Your task to perform on an android device: turn off priority inbox in the gmail app Image 0: 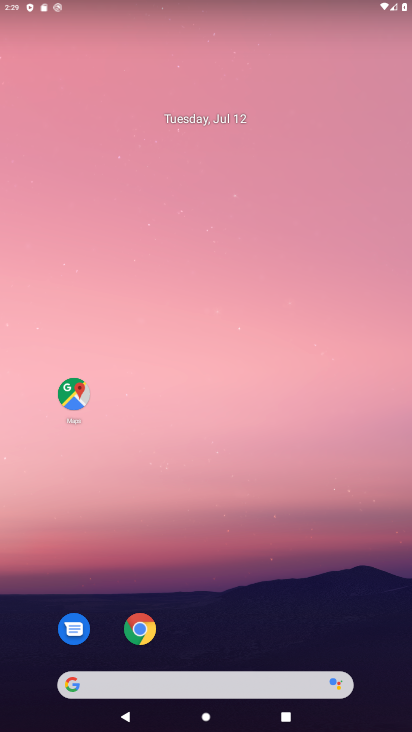
Step 0: press home button
Your task to perform on an android device: turn off priority inbox in the gmail app Image 1: 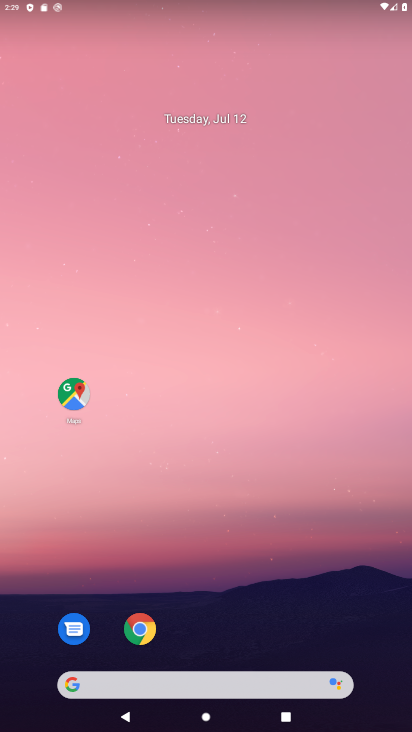
Step 1: drag from (214, 677) to (272, 96)
Your task to perform on an android device: turn off priority inbox in the gmail app Image 2: 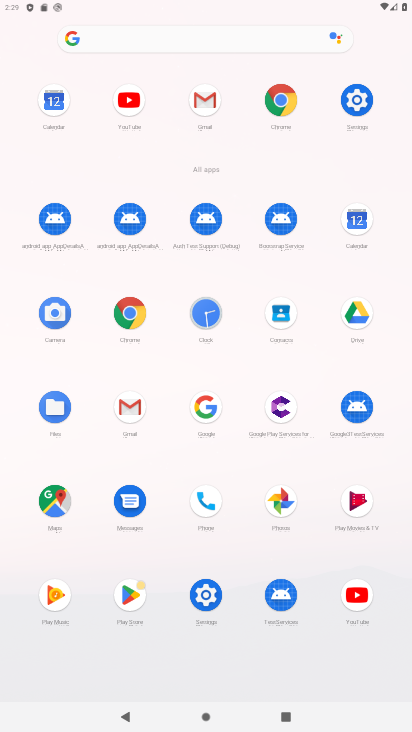
Step 2: click (130, 404)
Your task to perform on an android device: turn off priority inbox in the gmail app Image 3: 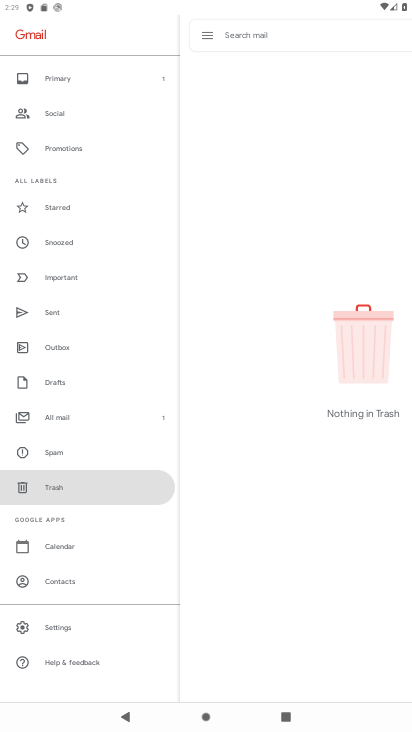
Step 3: click (50, 630)
Your task to perform on an android device: turn off priority inbox in the gmail app Image 4: 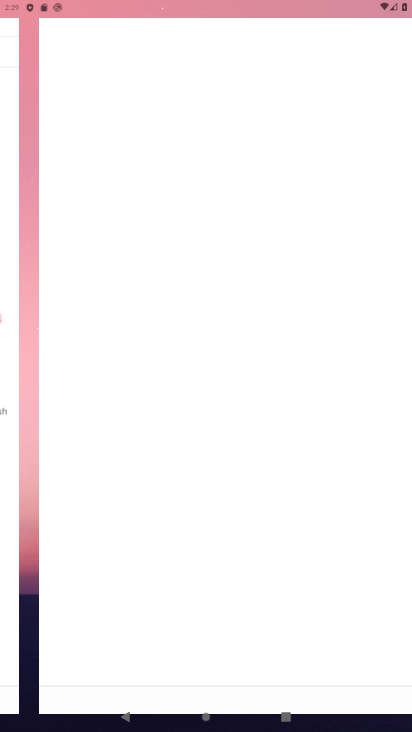
Step 4: click (50, 630)
Your task to perform on an android device: turn off priority inbox in the gmail app Image 5: 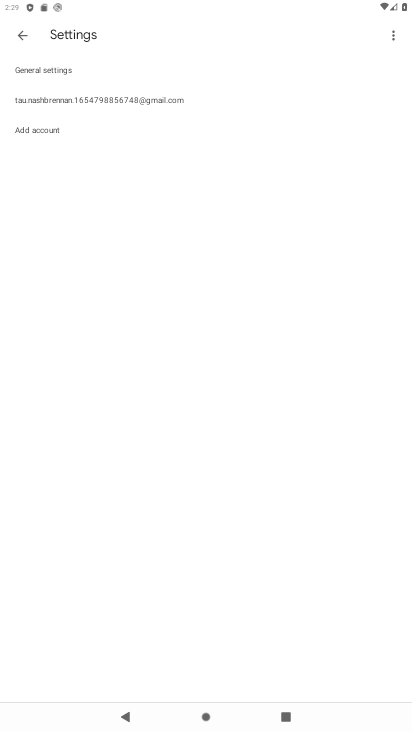
Step 5: click (97, 105)
Your task to perform on an android device: turn off priority inbox in the gmail app Image 6: 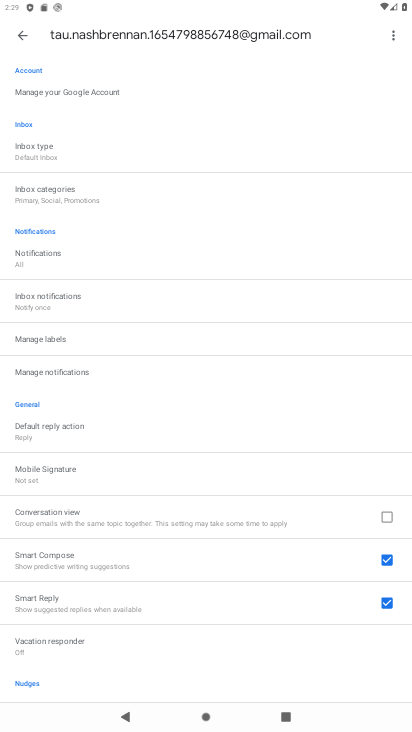
Step 6: click (60, 147)
Your task to perform on an android device: turn off priority inbox in the gmail app Image 7: 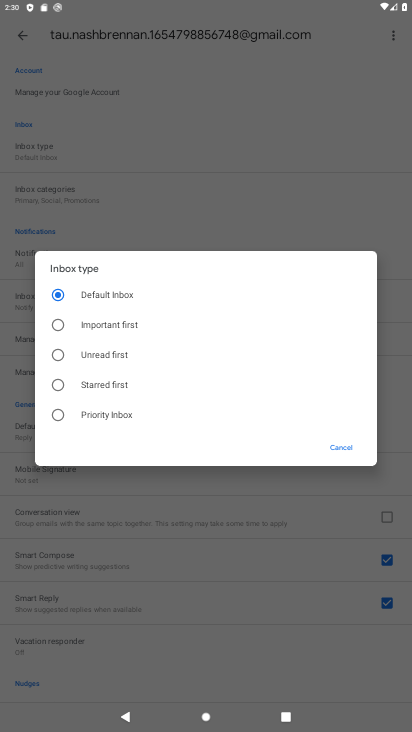
Step 7: click (61, 294)
Your task to perform on an android device: turn off priority inbox in the gmail app Image 8: 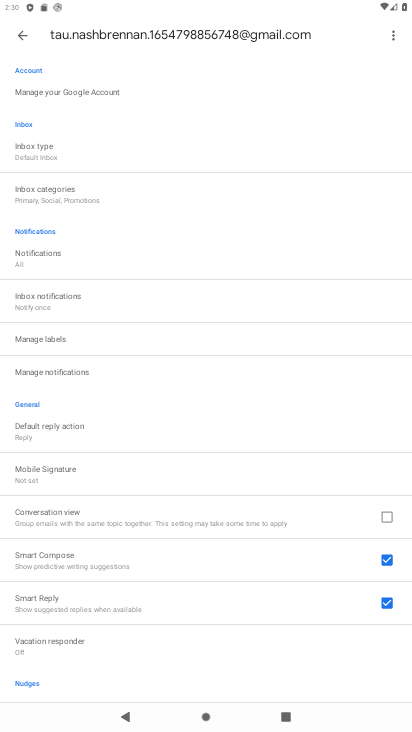
Step 8: task complete